Your task to perform on an android device: toggle airplane mode Image 0: 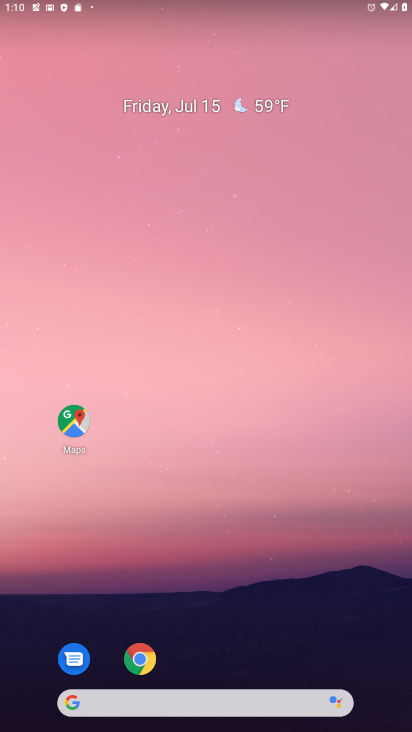
Step 0: drag from (230, 727) to (206, 59)
Your task to perform on an android device: toggle airplane mode Image 1: 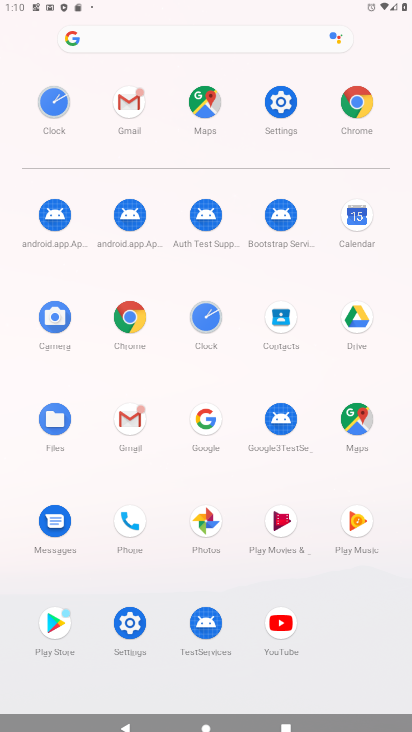
Step 1: click (284, 101)
Your task to perform on an android device: toggle airplane mode Image 2: 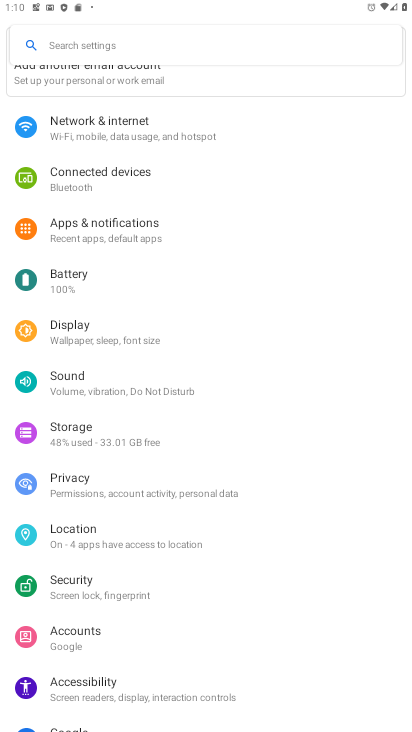
Step 2: click (95, 118)
Your task to perform on an android device: toggle airplane mode Image 3: 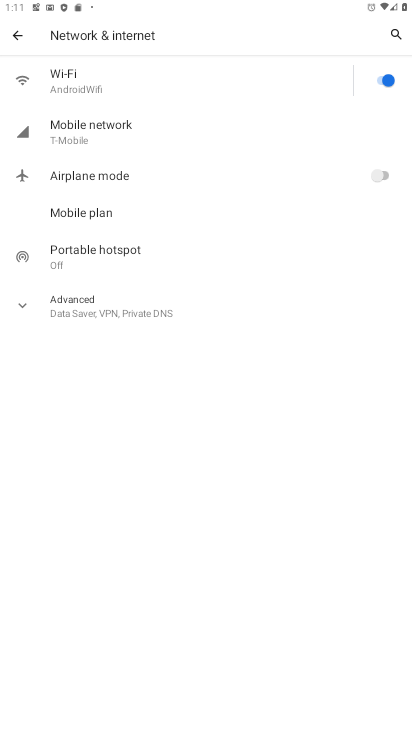
Step 3: click (394, 176)
Your task to perform on an android device: toggle airplane mode Image 4: 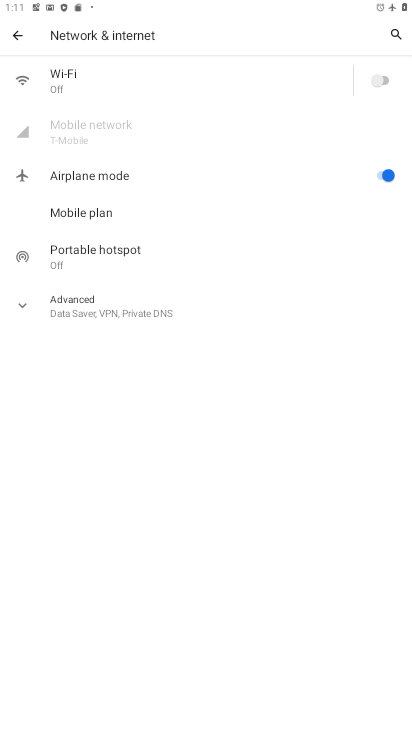
Step 4: task complete